Your task to perform on an android device: turn on the 24-hour format for clock Image 0: 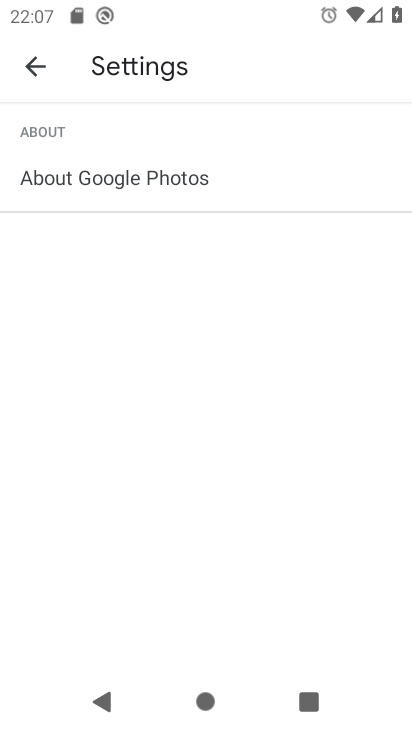
Step 0: click (41, 58)
Your task to perform on an android device: turn on the 24-hour format for clock Image 1: 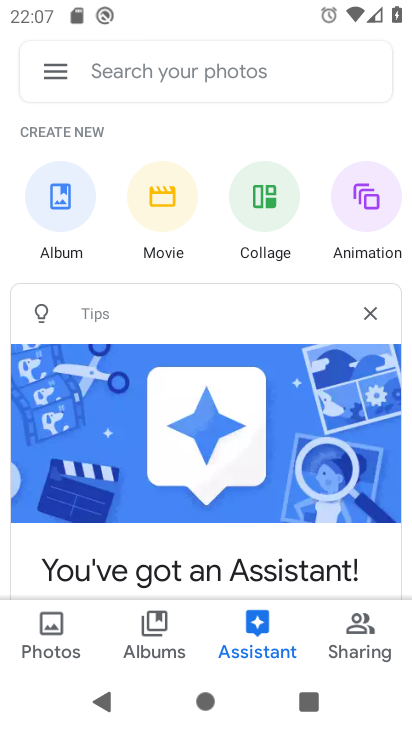
Step 1: press home button
Your task to perform on an android device: turn on the 24-hour format for clock Image 2: 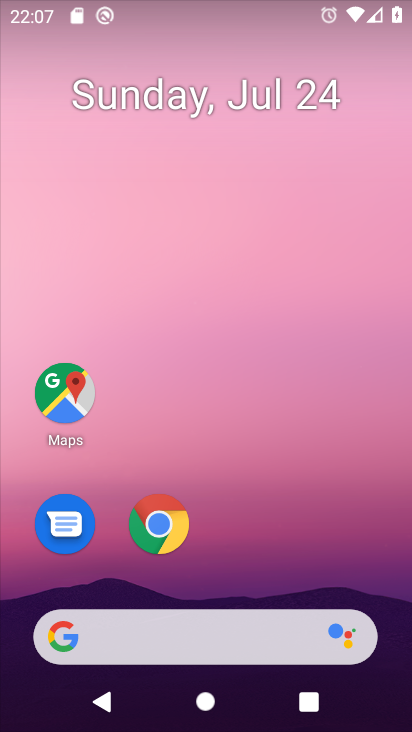
Step 2: drag from (269, 595) to (255, 76)
Your task to perform on an android device: turn on the 24-hour format for clock Image 3: 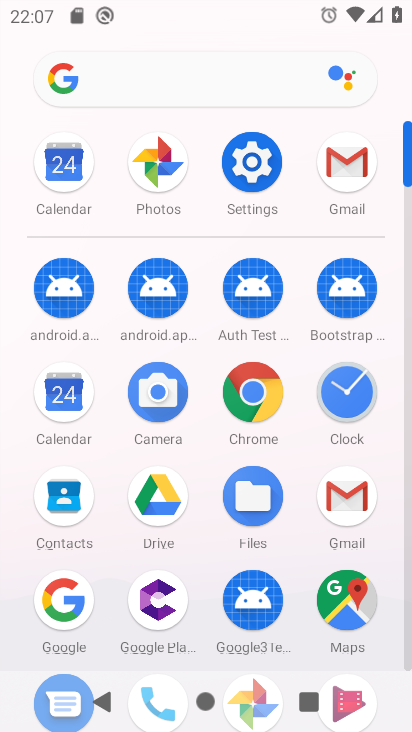
Step 3: click (354, 394)
Your task to perform on an android device: turn on the 24-hour format for clock Image 4: 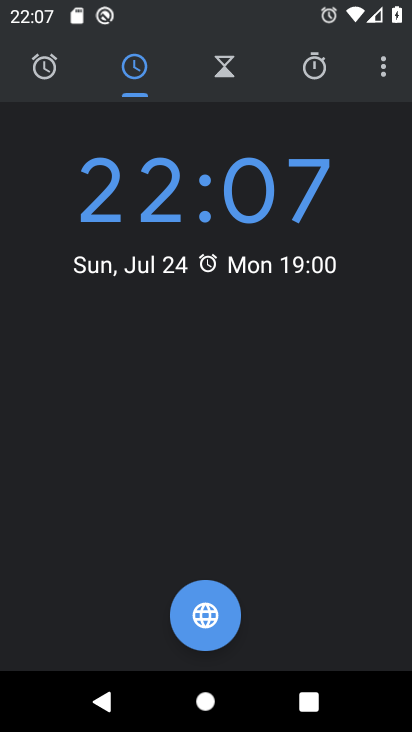
Step 4: task complete